Your task to perform on an android device: turn off data saver in the chrome app Image 0: 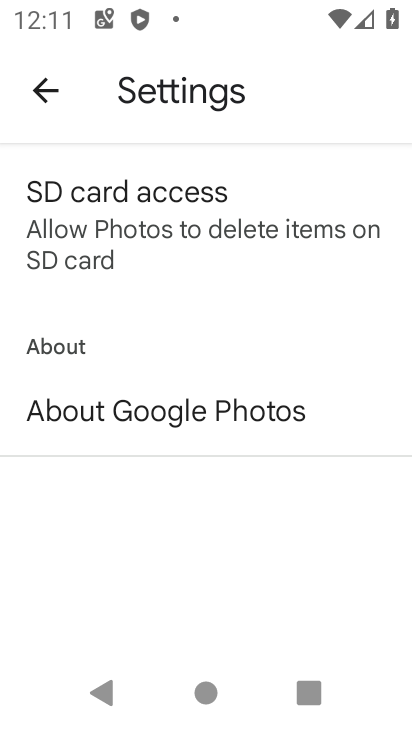
Step 0: press home button
Your task to perform on an android device: turn off data saver in the chrome app Image 1: 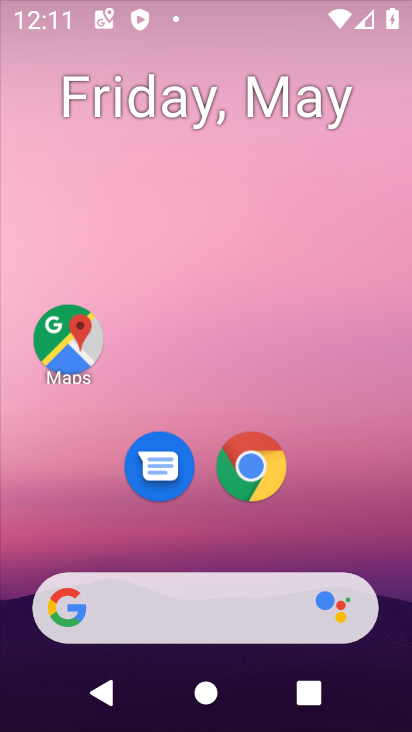
Step 1: drag from (401, 657) to (273, 50)
Your task to perform on an android device: turn off data saver in the chrome app Image 2: 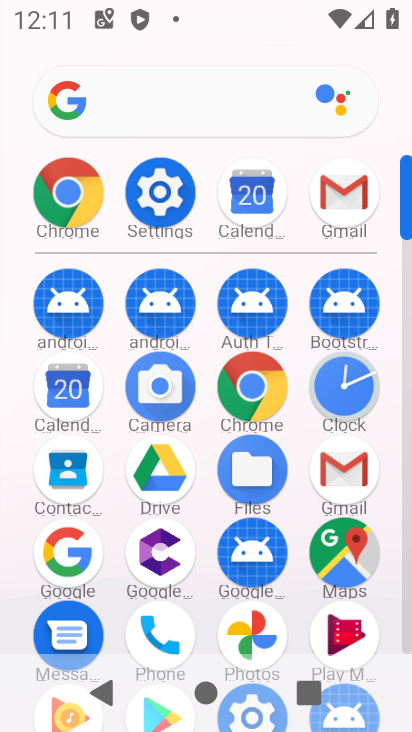
Step 2: click (237, 394)
Your task to perform on an android device: turn off data saver in the chrome app Image 3: 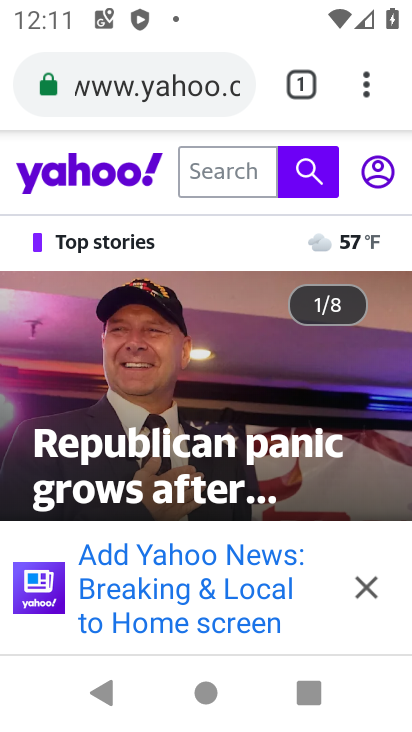
Step 3: press back button
Your task to perform on an android device: turn off data saver in the chrome app Image 4: 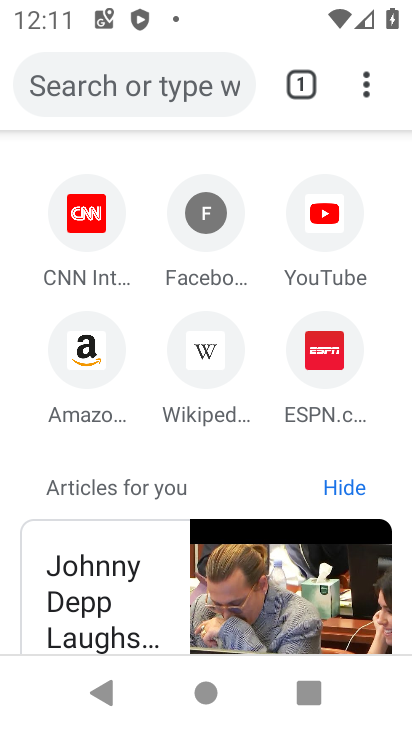
Step 4: click (364, 76)
Your task to perform on an android device: turn off data saver in the chrome app Image 5: 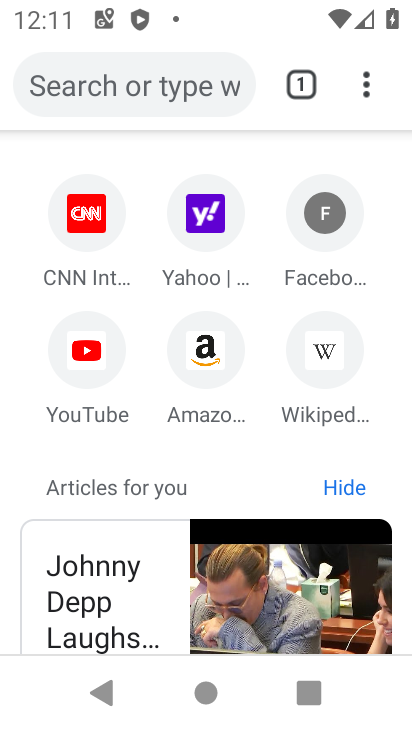
Step 5: click (364, 76)
Your task to perform on an android device: turn off data saver in the chrome app Image 6: 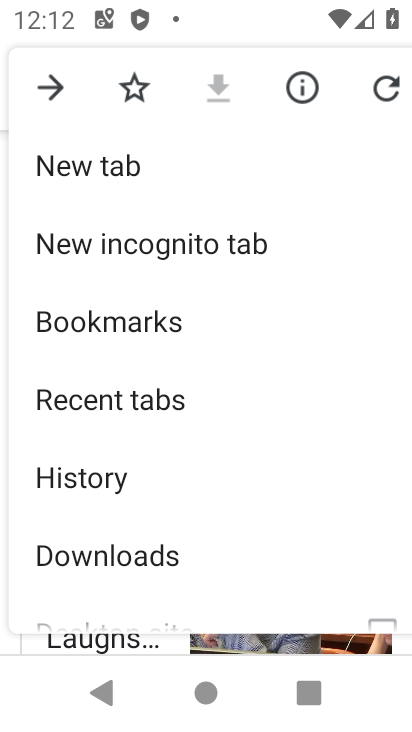
Step 6: drag from (148, 583) to (204, 104)
Your task to perform on an android device: turn off data saver in the chrome app Image 7: 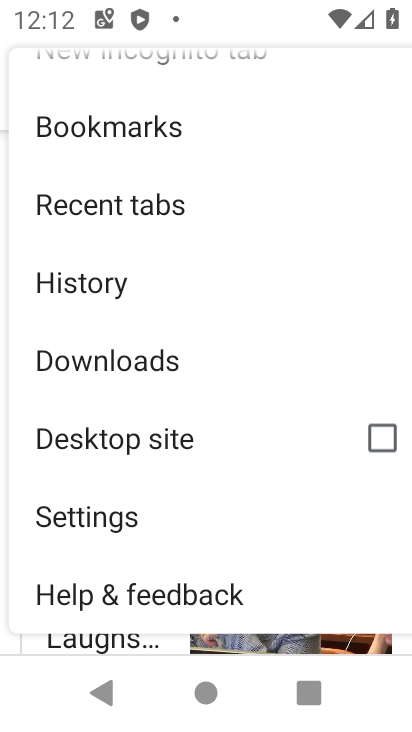
Step 7: click (102, 526)
Your task to perform on an android device: turn off data saver in the chrome app Image 8: 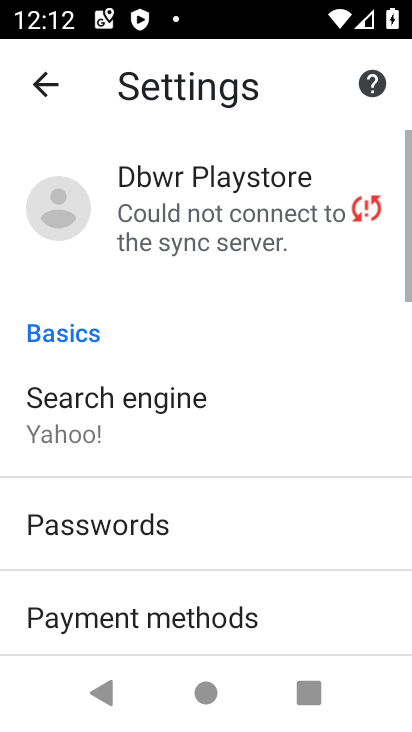
Step 8: drag from (106, 571) to (190, 74)
Your task to perform on an android device: turn off data saver in the chrome app Image 9: 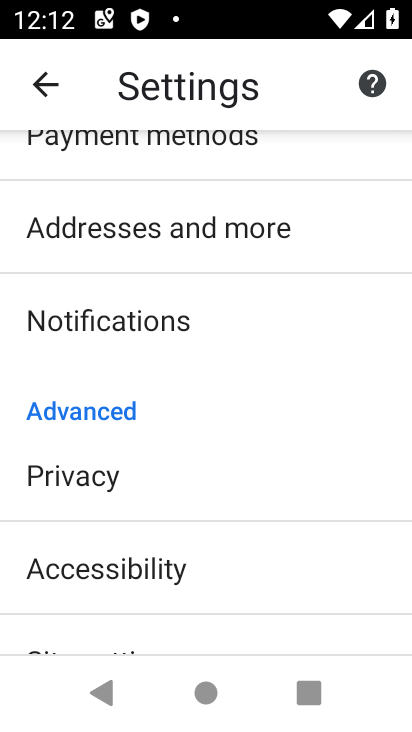
Step 9: drag from (117, 611) to (267, 142)
Your task to perform on an android device: turn off data saver in the chrome app Image 10: 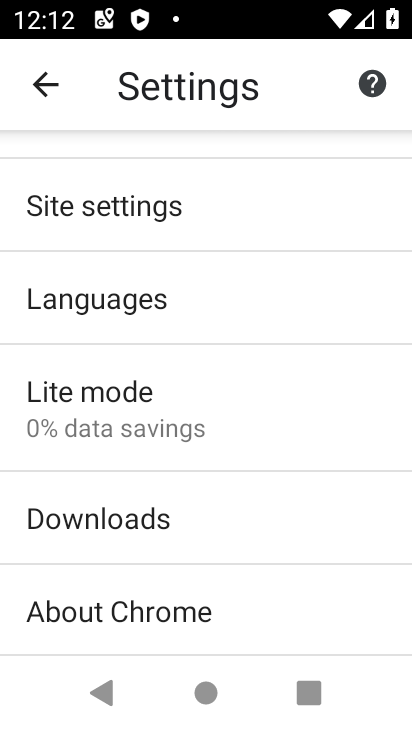
Step 10: click (138, 432)
Your task to perform on an android device: turn off data saver in the chrome app Image 11: 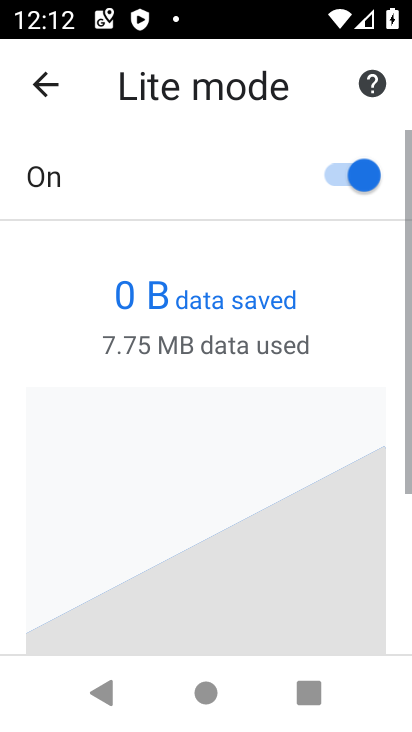
Step 11: click (333, 167)
Your task to perform on an android device: turn off data saver in the chrome app Image 12: 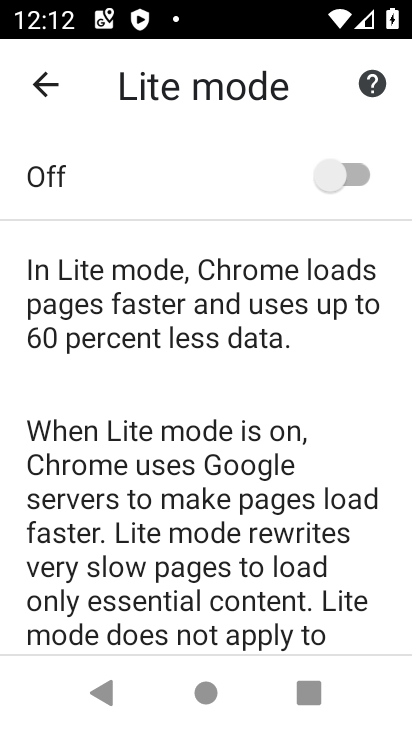
Step 12: task complete